Your task to perform on an android device: Go to display settings Image 0: 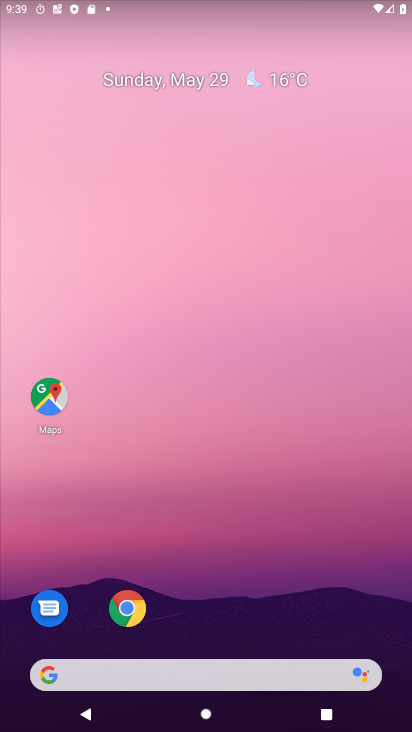
Step 0: drag from (179, 629) to (388, 9)
Your task to perform on an android device: Go to display settings Image 1: 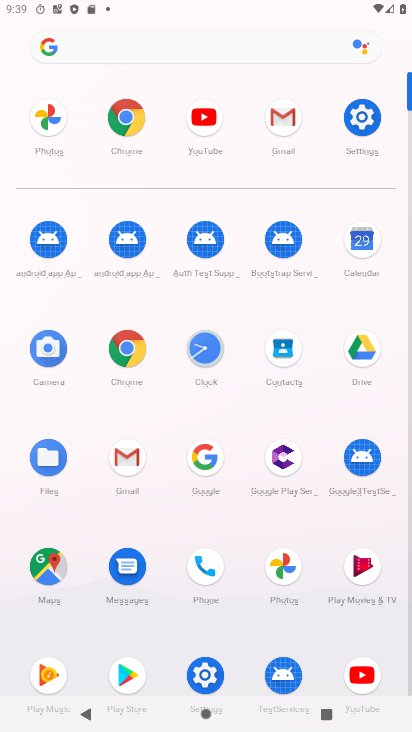
Step 1: click (358, 148)
Your task to perform on an android device: Go to display settings Image 2: 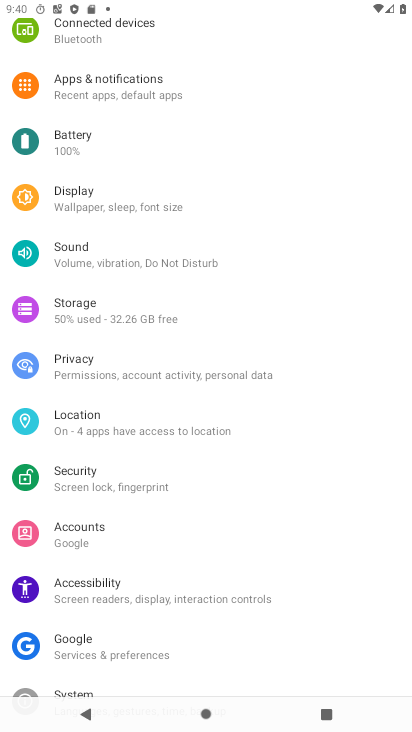
Step 2: click (88, 220)
Your task to perform on an android device: Go to display settings Image 3: 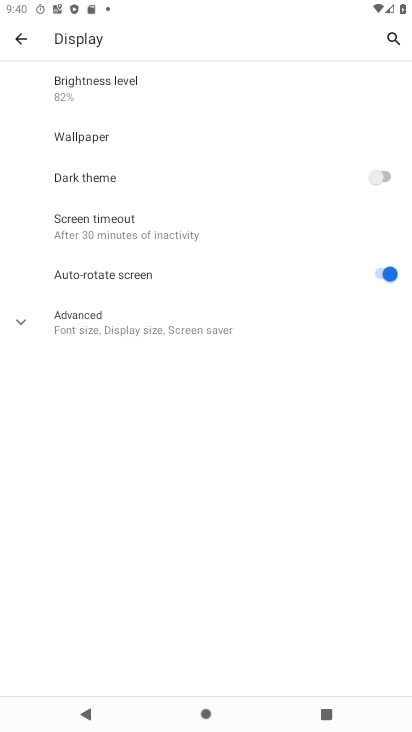
Step 3: task complete